Your task to perform on an android device: Open Google Chrome and click the shortcut for Amazon.com Image 0: 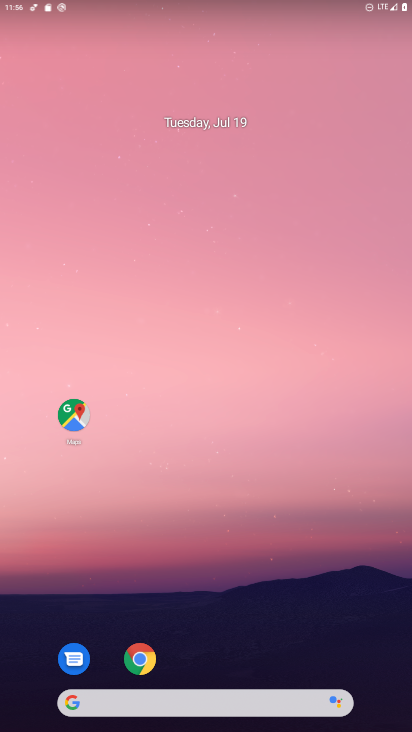
Step 0: drag from (336, 605) to (268, 141)
Your task to perform on an android device: Open Google Chrome and click the shortcut for Amazon.com Image 1: 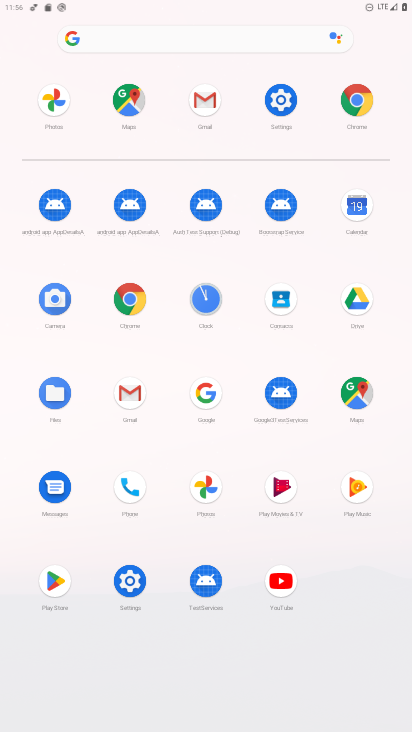
Step 1: click (128, 304)
Your task to perform on an android device: Open Google Chrome and click the shortcut for Amazon.com Image 2: 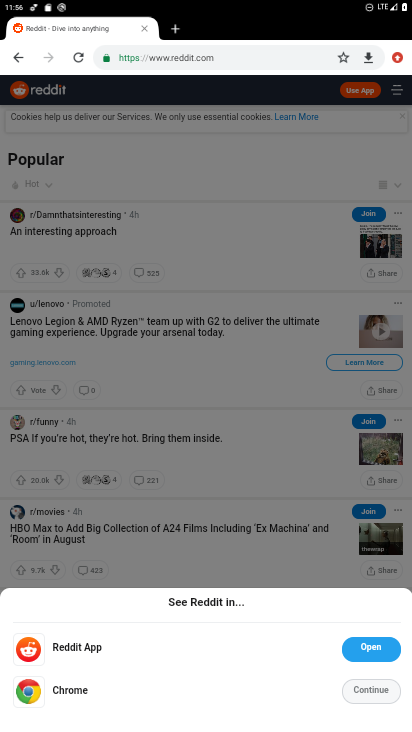
Step 2: click (180, 33)
Your task to perform on an android device: Open Google Chrome and click the shortcut for Amazon.com Image 3: 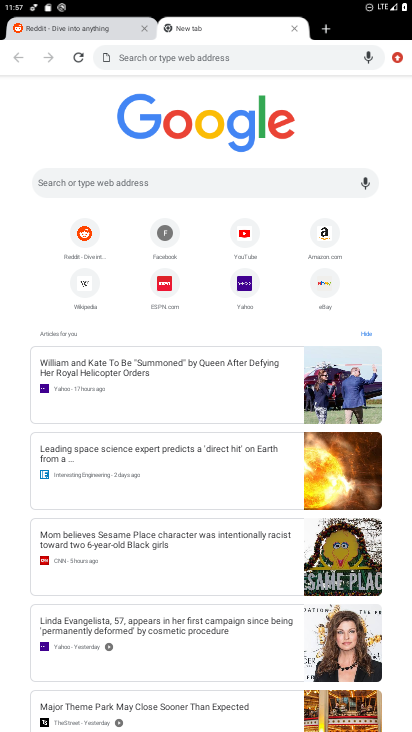
Step 3: click (318, 232)
Your task to perform on an android device: Open Google Chrome and click the shortcut for Amazon.com Image 4: 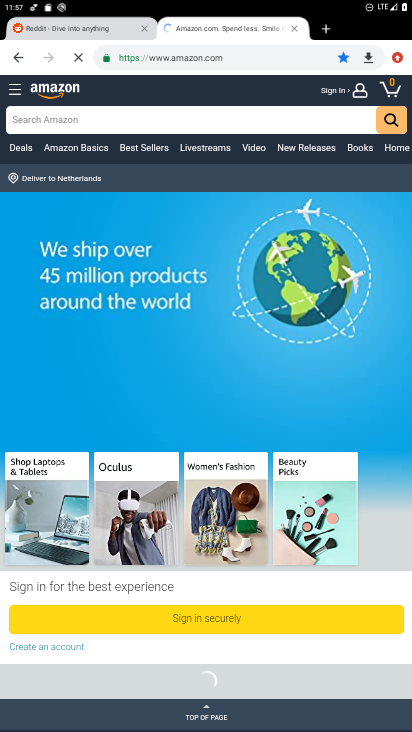
Step 4: task complete